Your task to perform on an android device: change the clock display to show seconds Image 0: 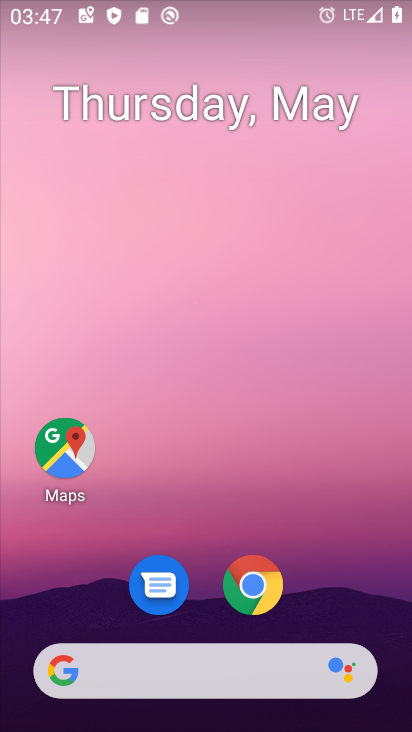
Step 0: drag from (230, 501) to (231, 79)
Your task to perform on an android device: change the clock display to show seconds Image 1: 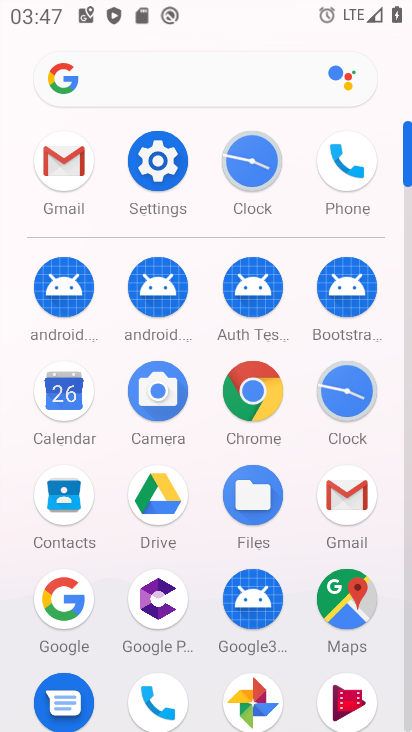
Step 1: click (339, 381)
Your task to perform on an android device: change the clock display to show seconds Image 2: 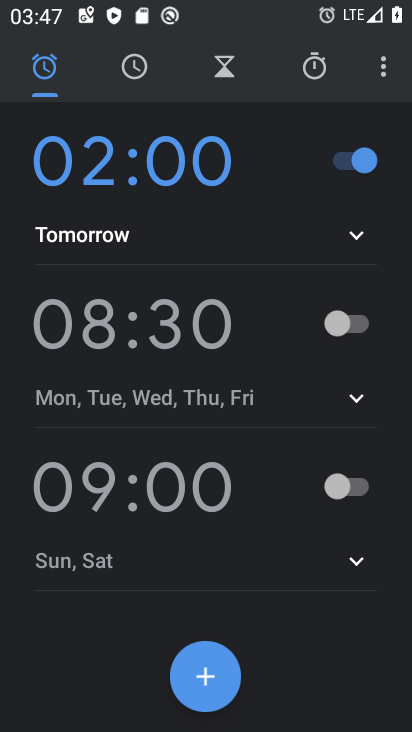
Step 2: click (381, 71)
Your task to perform on an android device: change the clock display to show seconds Image 3: 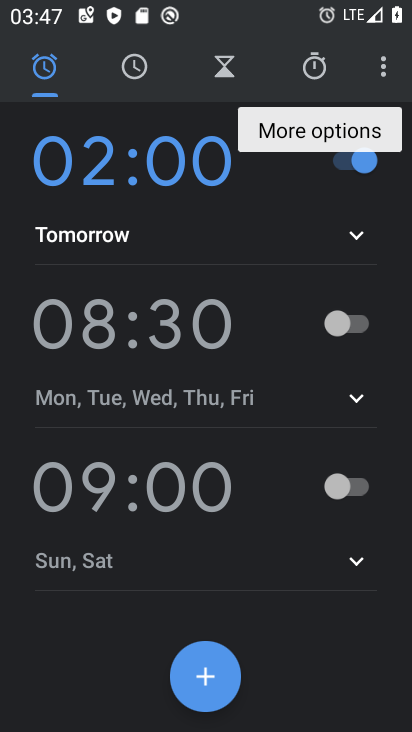
Step 3: click (381, 71)
Your task to perform on an android device: change the clock display to show seconds Image 4: 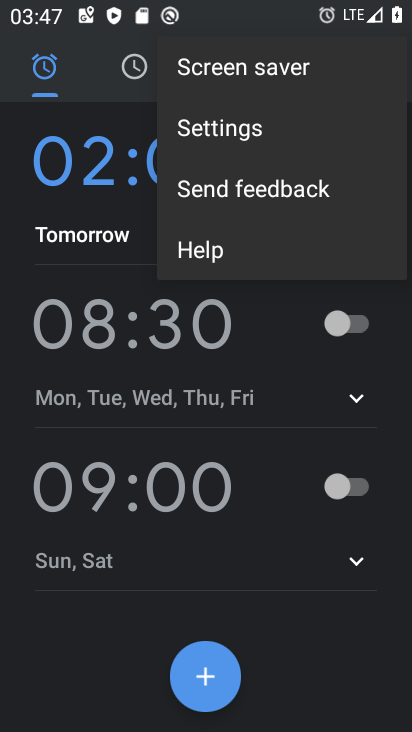
Step 4: click (273, 128)
Your task to perform on an android device: change the clock display to show seconds Image 5: 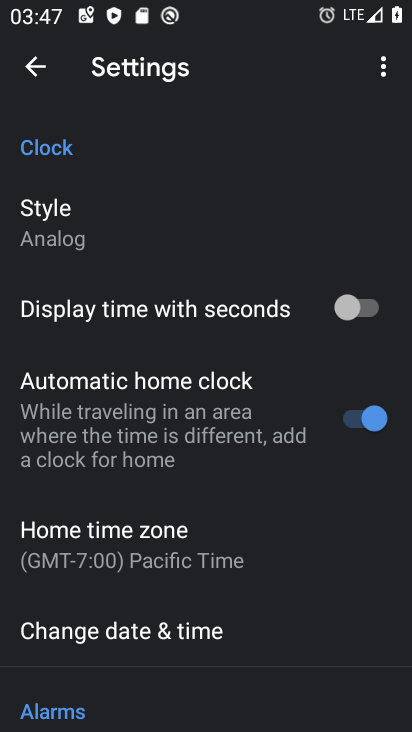
Step 5: click (362, 305)
Your task to perform on an android device: change the clock display to show seconds Image 6: 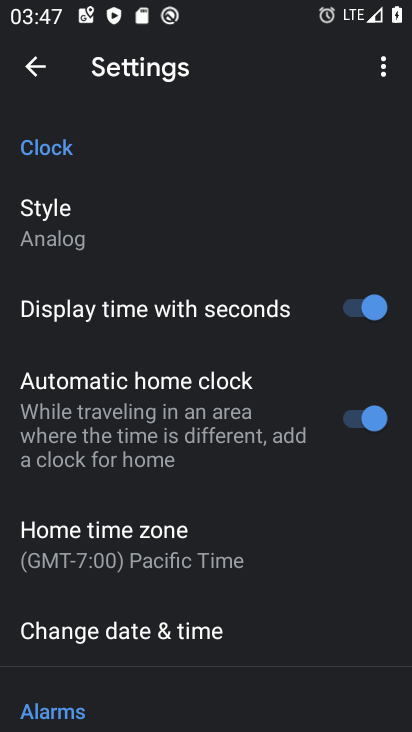
Step 6: task complete